Your task to perform on an android device: toggle wifi Image 0: 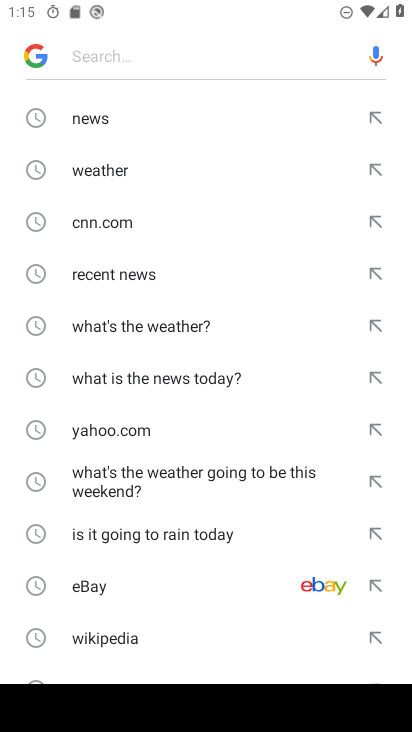
Step 0: press home button
Your task to perform on an android device: toggle wifi Image 1: 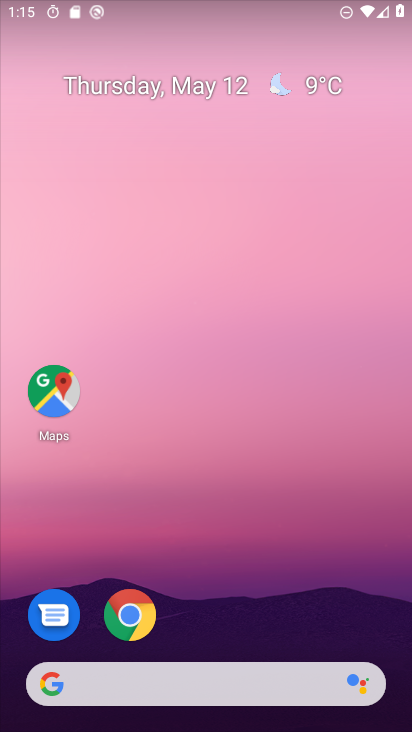
Step 1: drag from (255, 566) to (158, 81)
Your task to perform on an android device: toggle wifi Image 2: 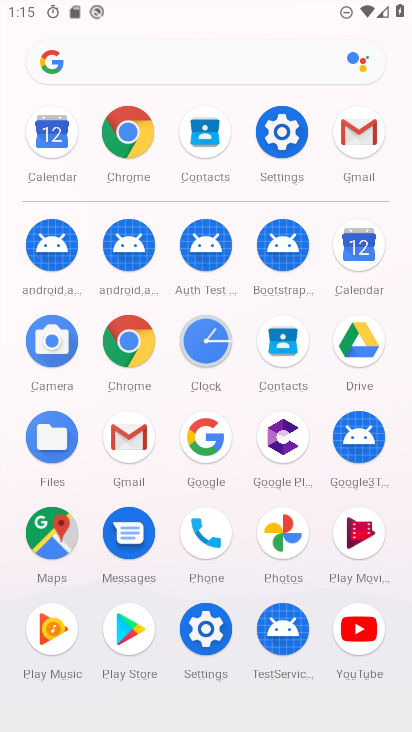
Step 2: click (279, 138)
Your task to perform on an android device: toggle wifi Image 3: 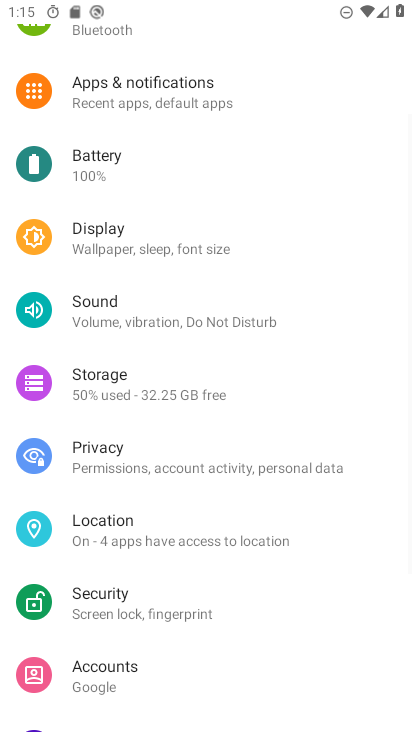
Step 3: drag from (143, 110) to (209, 490)
Your task to perform on an android device: toggle wifi Image 4: 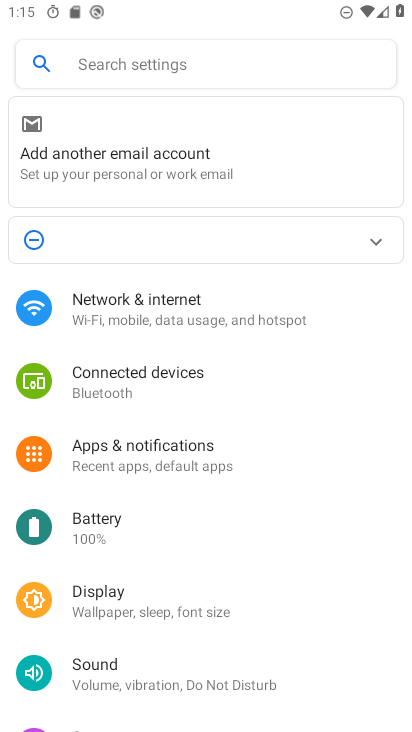
Step 4: click (175, 305)
Your task to perform on an android device: toggle wifi Image 5: 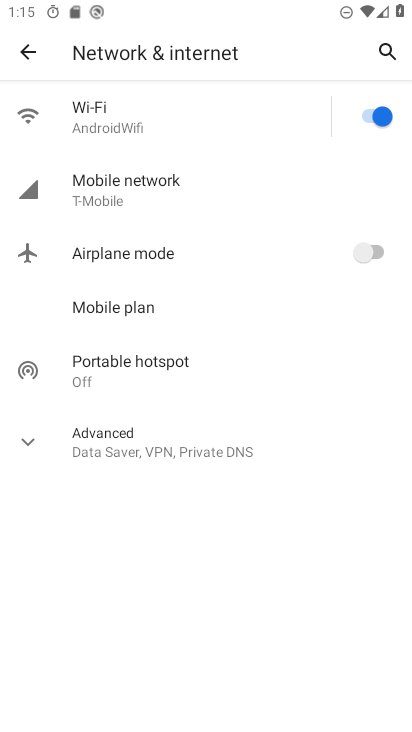
Step 5: click (260, 112)
Your task to perform on an android device: toggle wifi Image 6: 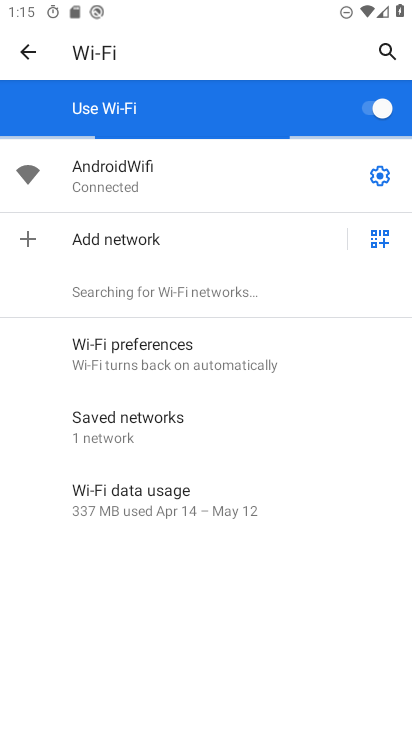
Step 6: click (379, 113)
Your task to perform on an android device: toggle wifi Image 7: 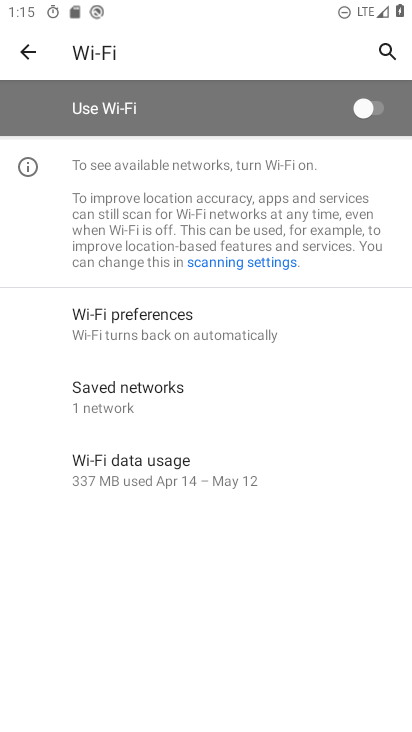
Step 7: task complete